Your task to perform on an android device: Go to Amazon Image 0: 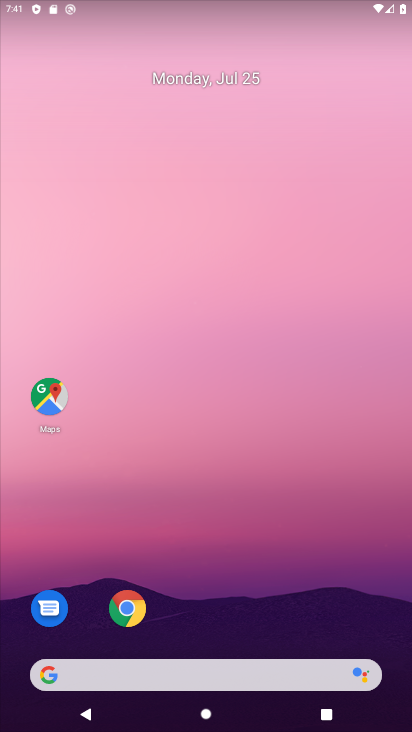
Step 0: drag from (183, 612) to (152, 7)
Your task to perform on an android device: Go to Amazon Image 1: 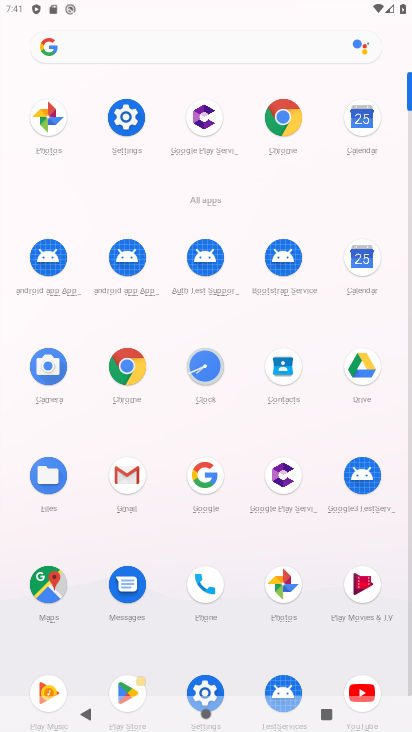
Step 1: click (128, 365)
Your task to perform on an android device: Go to Amazon Image 2: 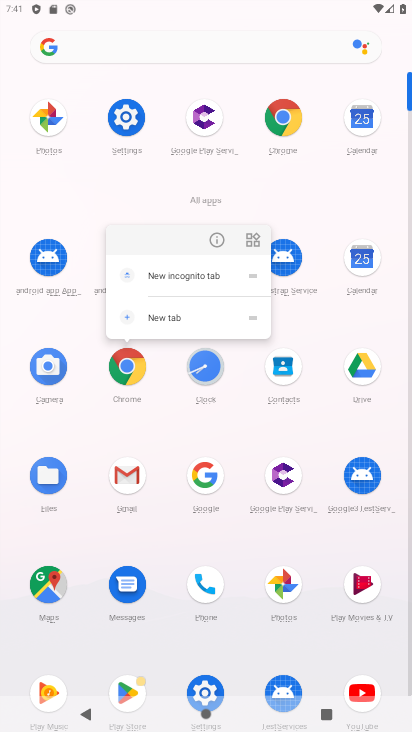
Step 2: click (223, 241)
Your task to perform on an android device: Go to Amazon Image 3: 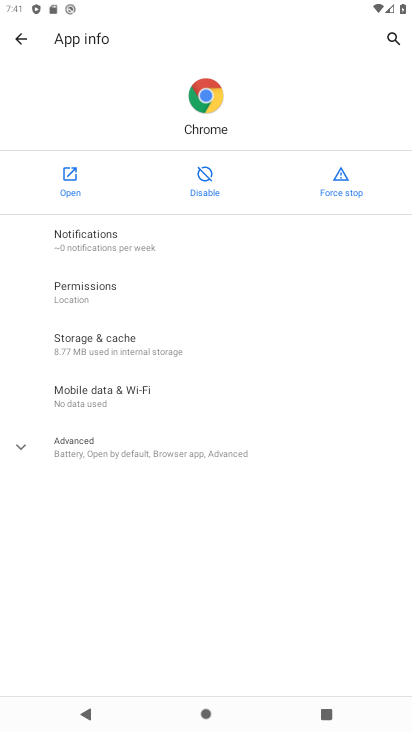
Step 3: click (72, 179)
Your task to perform on an android device: Go to Amazon Image 4: 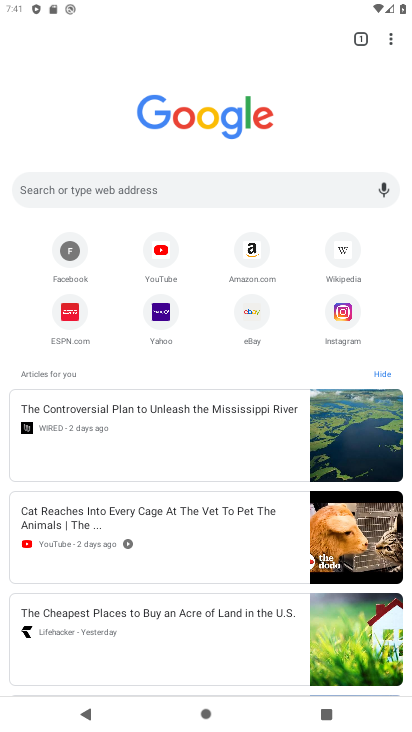
Step 4: click (247, 235)
Your task to perform on an android device: Go to Amazon Image 5: 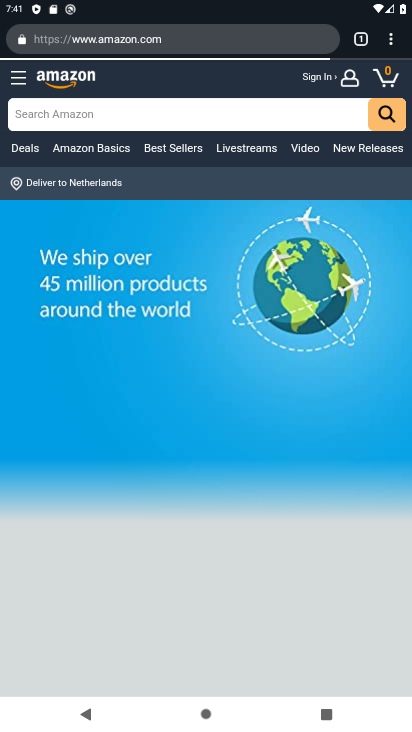
Step 5: task complete